Your task to perform on an android device: see tabs open on other devices in the chrome app Image 0: 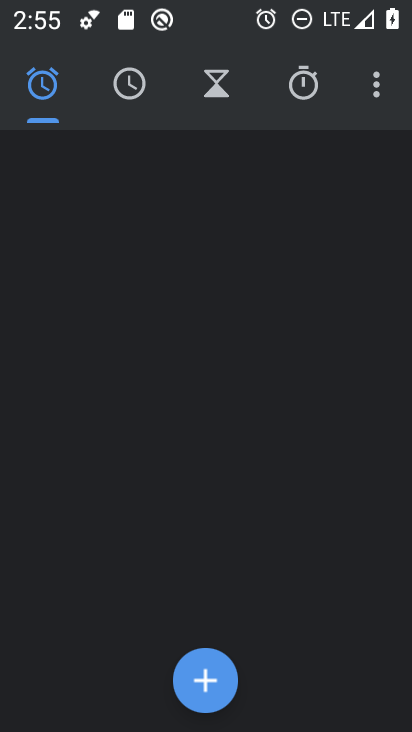
Step 0: drag from (345, 572) to (341, 226)
Your task to perform on an android device: see tabs open on other devices in the chrome app Image 1: 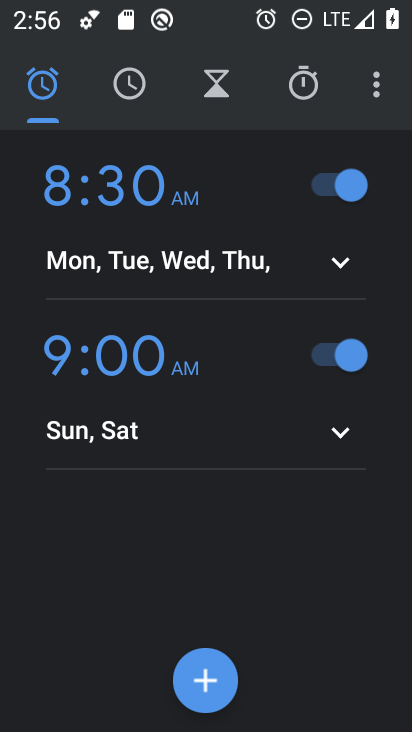
Step 1: press home button
Your task to perform on an android device: see tabs open on other devices in the chrome app Image 2: 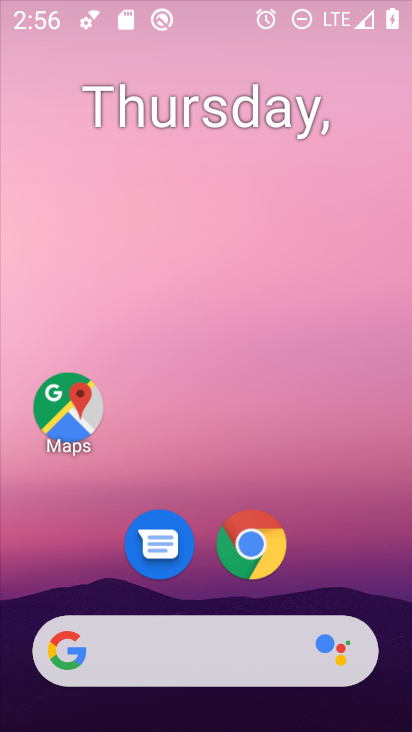
Step 2: click (246, 562)
Your task to perform on an android device: see tabs open on other devices in the chrome app Image 3: 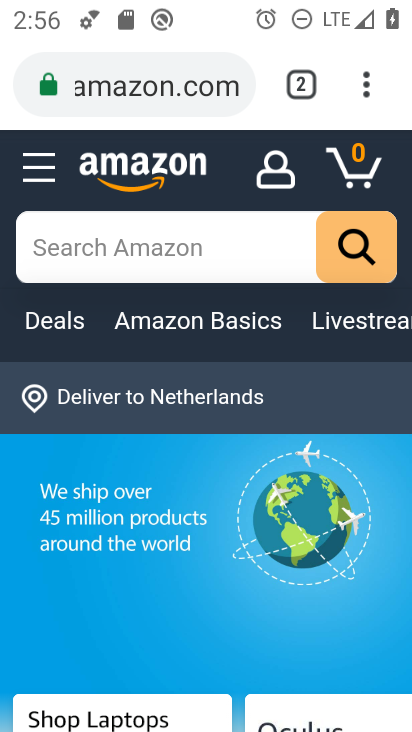
Step 3: click (376, 91)
Your task to perform on an android device: see tabs open on other devices in the chrome app Image 4: 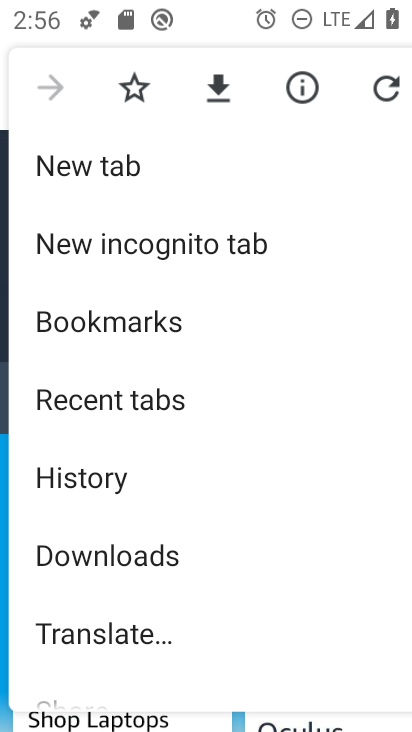
Step 4: drag from (260, 582) to (303, 228)
Your task to perform on an android device: see tabs open on other devices in the chrome app Image 5: 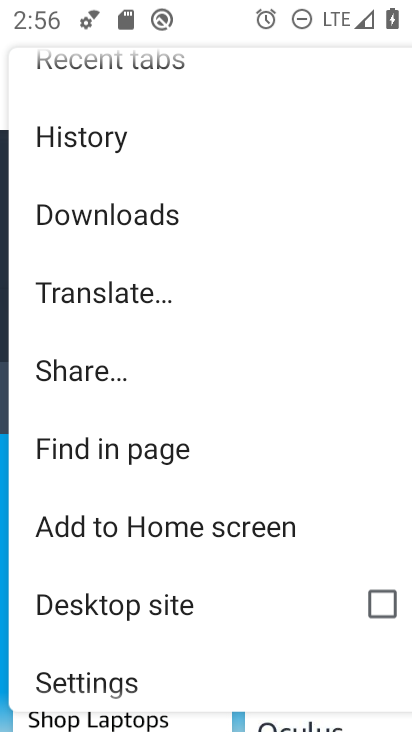
Step 5: drag from (303, 159) to (296, 613)
Your task to perform on an android device: see tabs open on other devices in the chrome app Image 6: 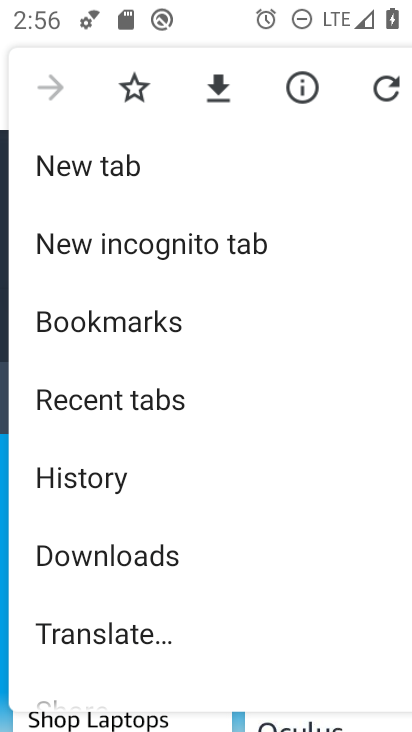
Step 6: click (187, 405)
Your task to perform on an android device: see tabs open on other devices in the chrome app Image 7: 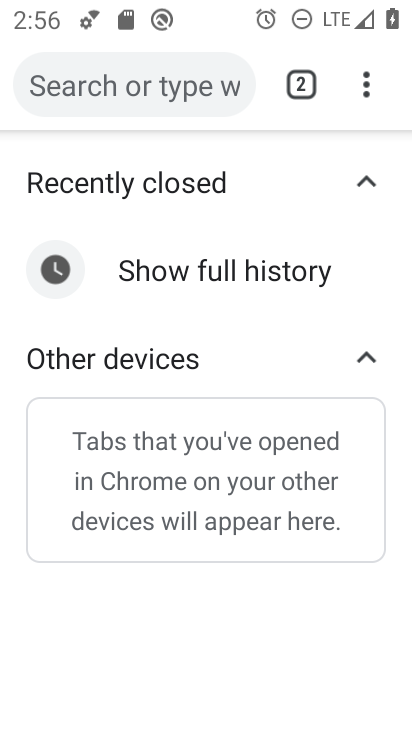
Step 7: click (174, 259)
Your task to perform on an android device: see tabs open on other devices in the chrome app Image 8: 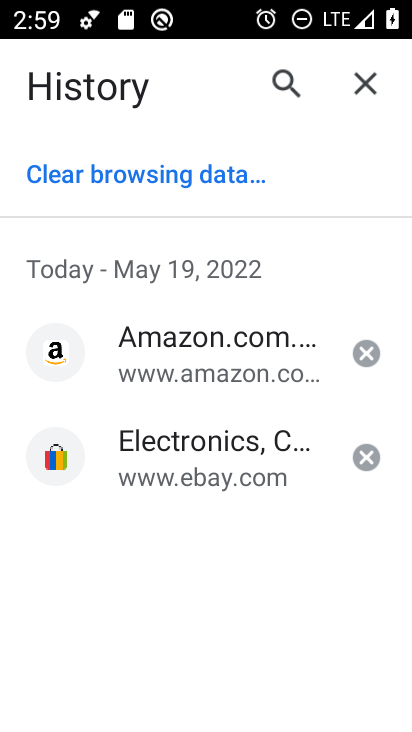
Step 8: task complete